Your task to perform on an android device: turn off location history Image 0: 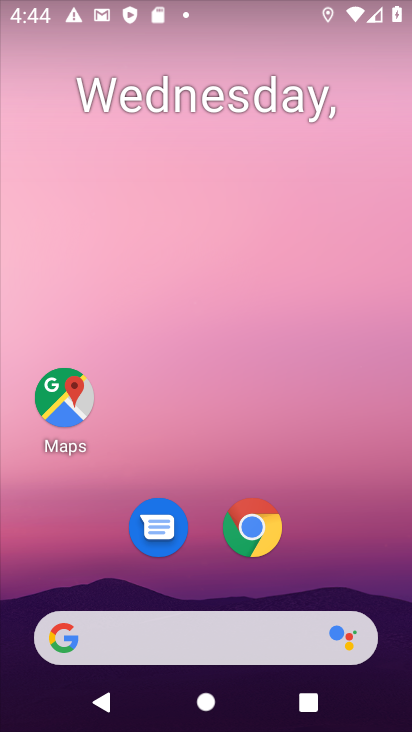
Step 0: drag from (164, 553) to (162, 305)
Your task to perform on an android device: turn off location history Image 1: 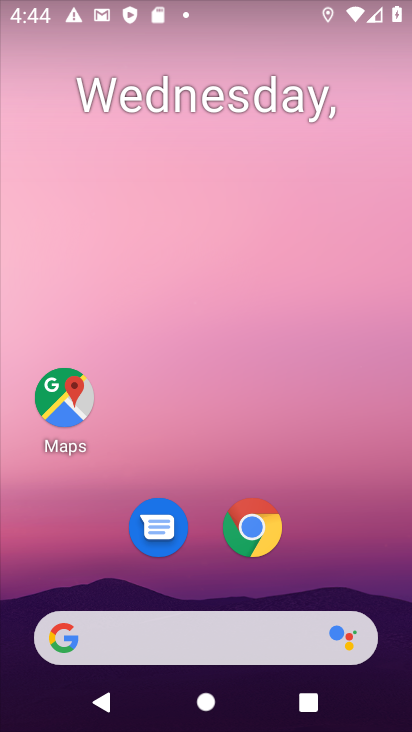
Step 1: drag from (227, 490) to (226, 240)
Your task to perform on an android device: turn off location history Image 2: 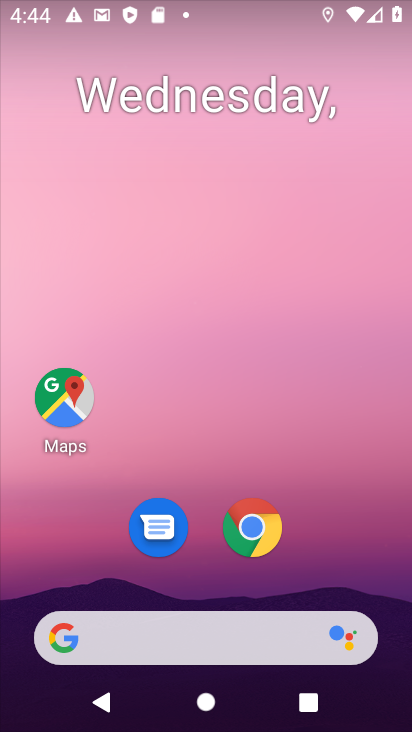
Step 2: drag from (155, 630) to (124, 326)
Your task to perform on an android device: turn off location history Image 3: 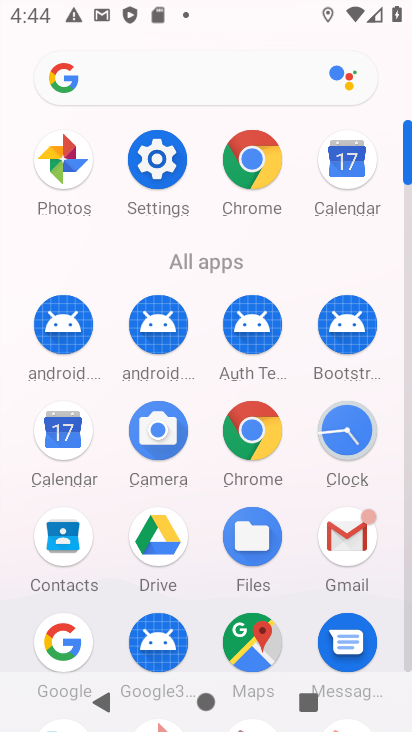
Step 3: click (144, 175)
Your task to perform on an android device: turn off location history Image 4: 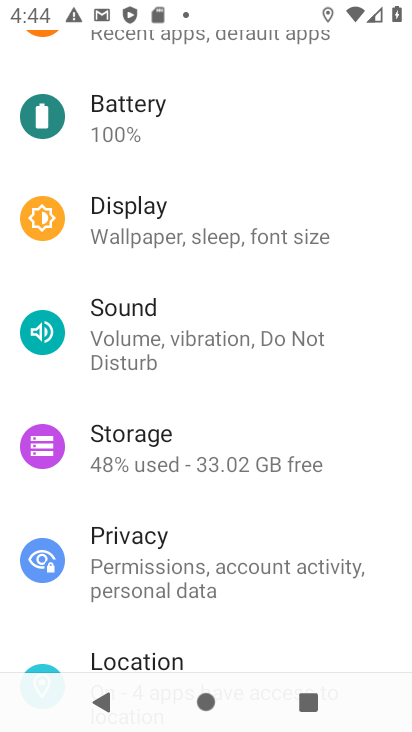
Step 4: click (142, 652)
Your task to perform on an android device: turn off location history Image 5: 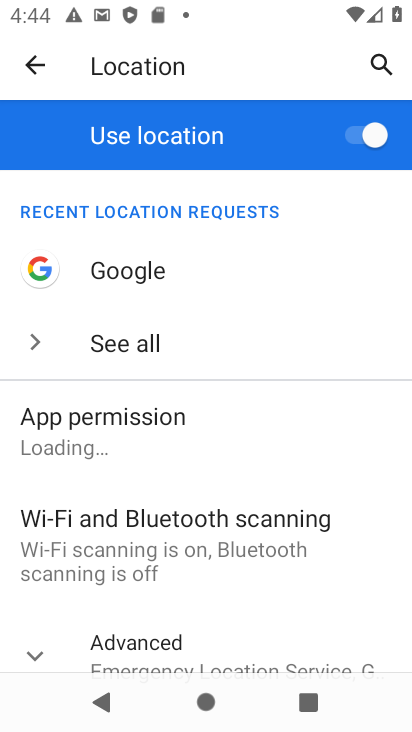
Step 5: drag from (142, 615) to (141, 256)
Your task to perform on an android device: turn off location history Image 6: 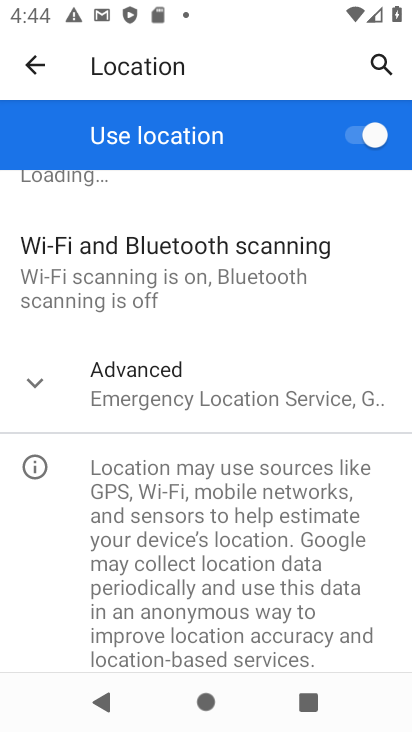
Step 6: click (127, 385)
Your task to perform on an android device: turn off location history Image 7: 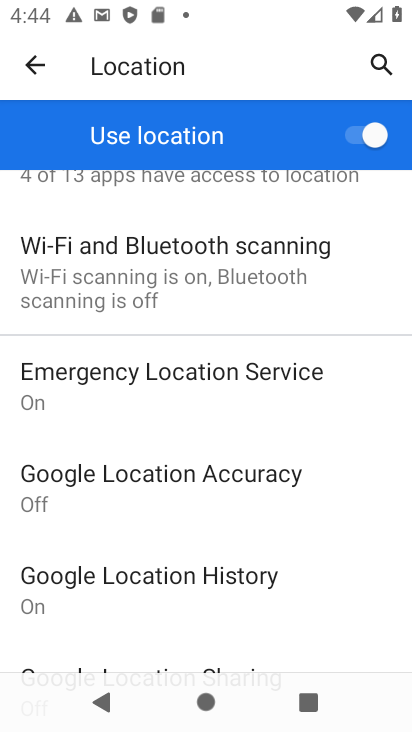
Step 7: drag from (171, 604) to (151, 325)
Your task to perform on an android device: turn off location history Image 8: 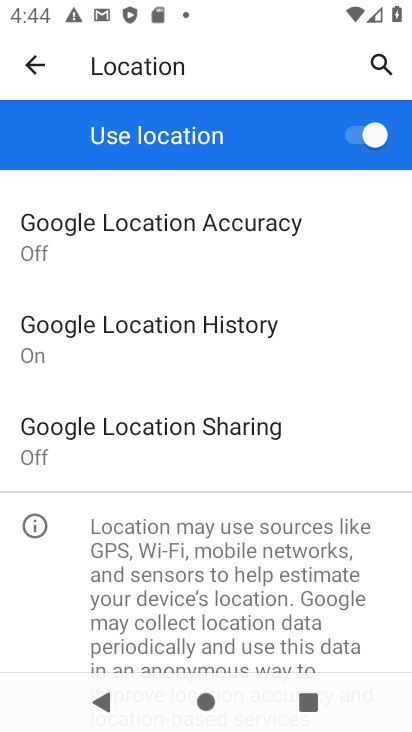
Step 8: click (162, 328)
Your task to perform on an android device: turn off location history Image 9: 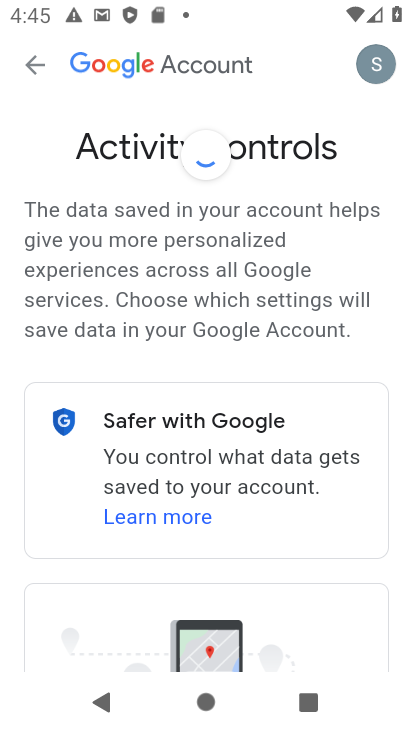
Step 9: drag from (184, 536) to (179, 235)
Your task to perform on an android device: turn off location history Image 10: 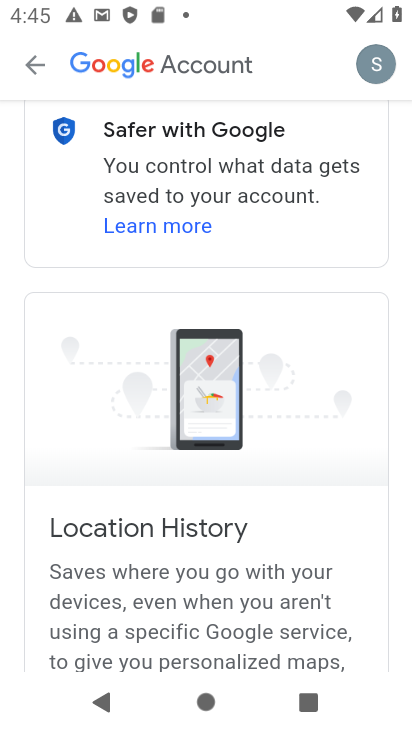
Step 10: drag from (214, 451) to (206, 384)
Your task to perform on an android device: turn off location history Image 11: 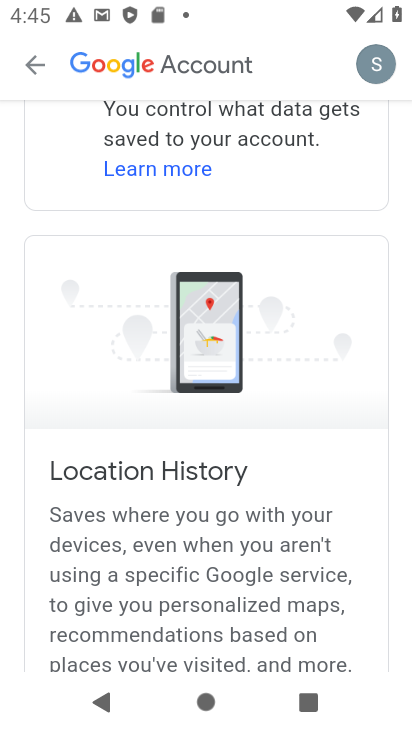
Step 11: drag from (191, 562) to (169, 334)
Your task to perform on an android device: turn off location history Image 12: 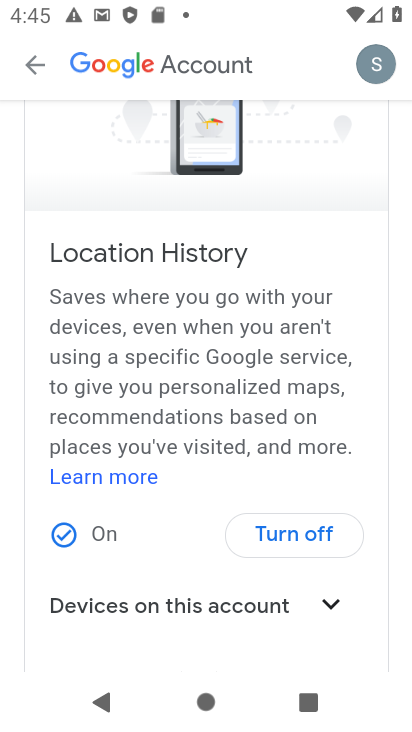
Step 12: click (295, 535)
Your task to perform on an android device: turn off location history Image 13: 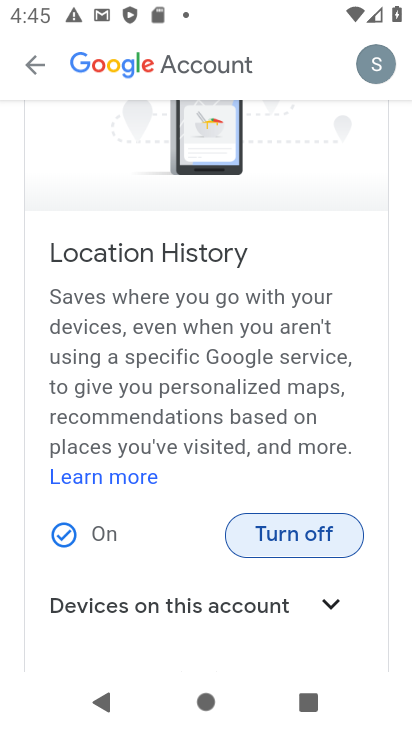
Step 13: click (295, 535)
Your task to perform on an android device: turn off location history Image 14: 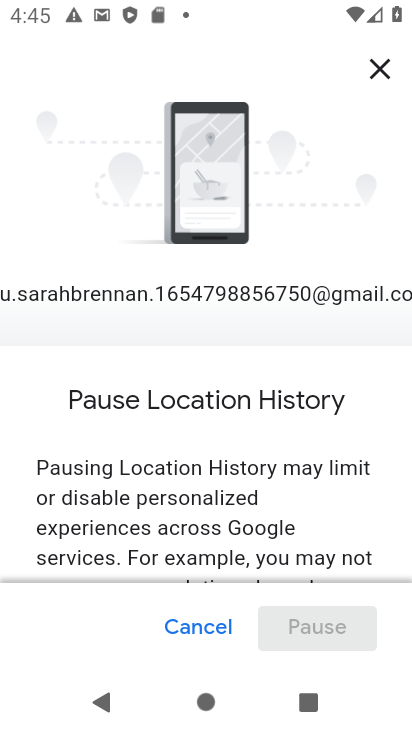
Step 14: drag from (312, 523) to (306, 221)
Your task to perform on an android device: turn off location history Image 15: 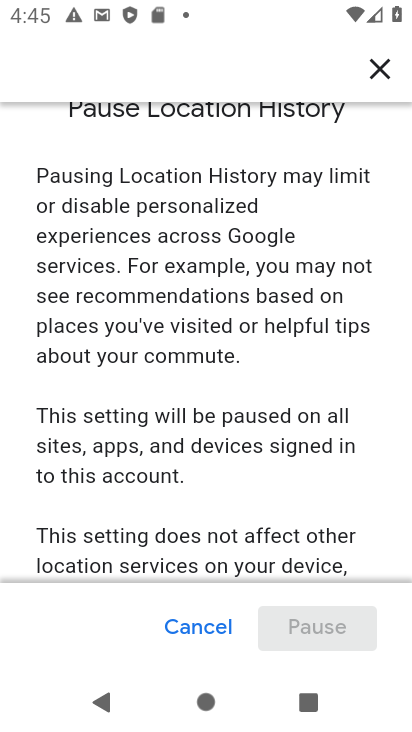
Step 15: drag from (294, 581) to (294, 354)
Your task to perform on an android device: turn off location history Image 16: 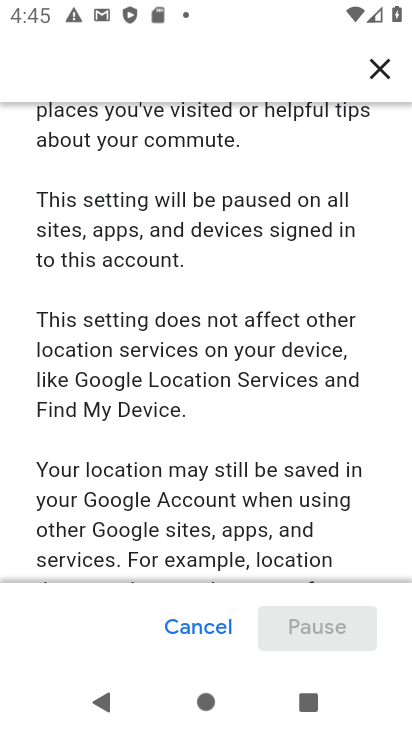
Step 16: drag from (266, 504) to (253, 316)
Your task to perform on an android device: turn off location history Image 17: 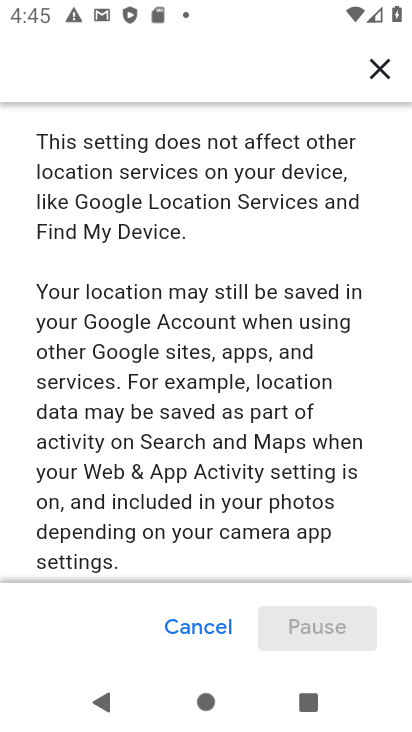
Step 17: drag from (267, 522) to (256, 346)
Your task to perform on an android device: turn off location history Image 18: 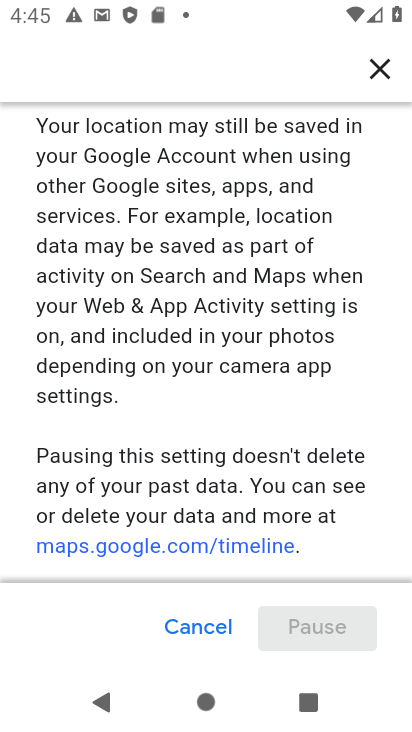
Step 18: drag from (279, 543) to (246, 330)
Your task to perform on an android device: turn off location history Image 19: 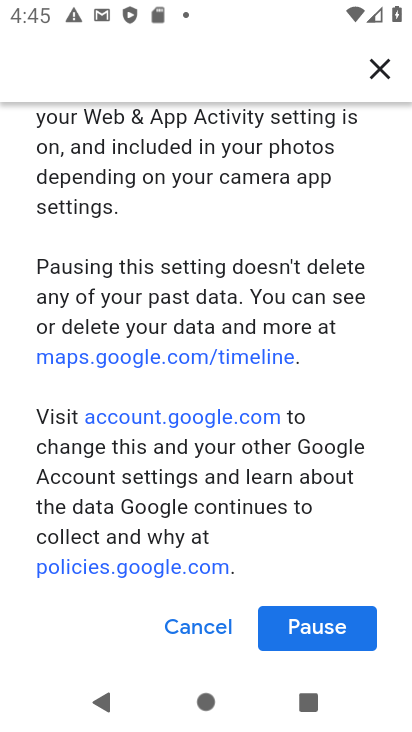
Step 19: click (292, 627)
Your task to perform on an android device: turn off location history Image 20: 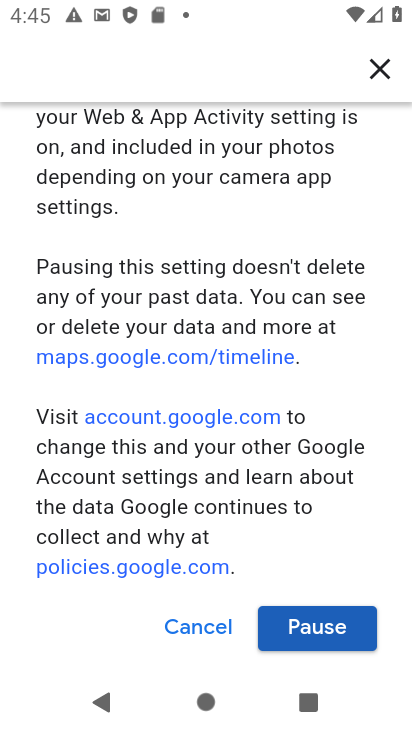
Step 20: click (305, 632)
Your task to perform on an android device: turn off location history Image 21: 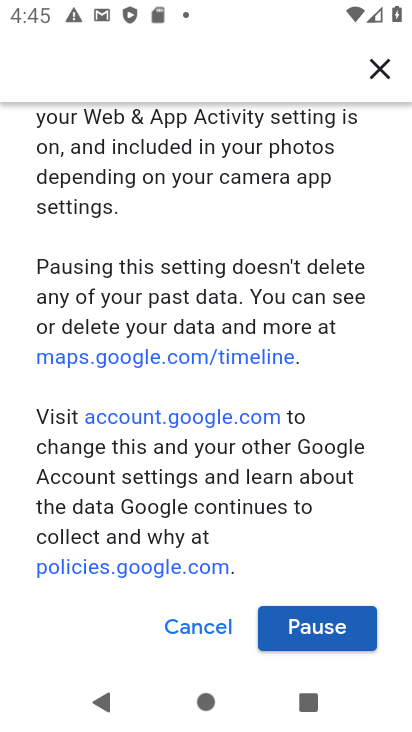
Step 21: click (313, 625)
Your task to perform on an android device: turn off location history Image 22: 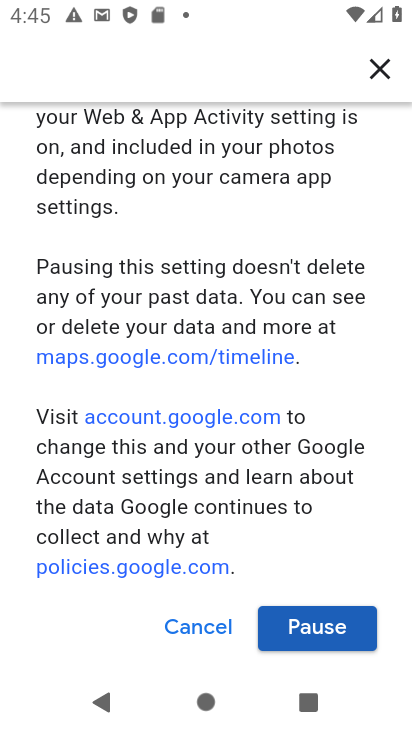
Step 22: click (316, 633)
Your task to perform on an android device: turn off location history Image 23: 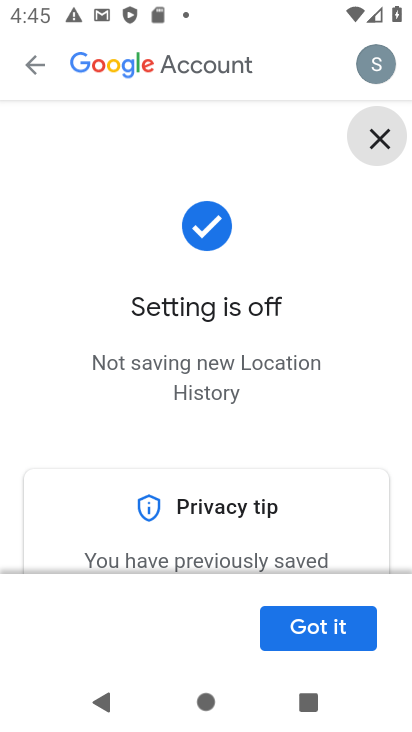
Step 23: click (316, 633)
Your task to perform on an android device: turn off location history Image 24: 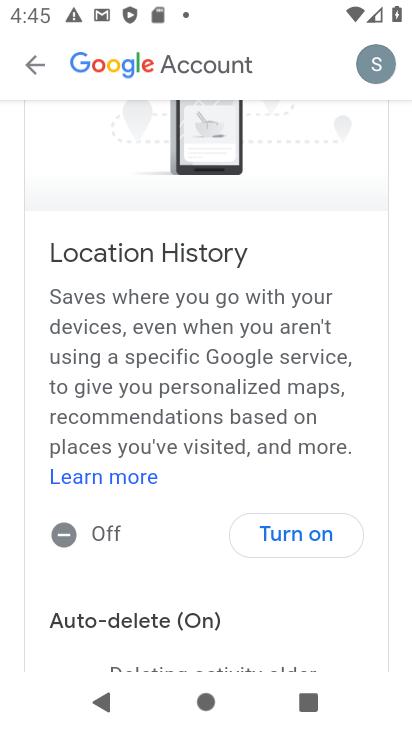
Step 24: task complete